Your task to perform on an android device: set default search engine in the chrome app Image 0: 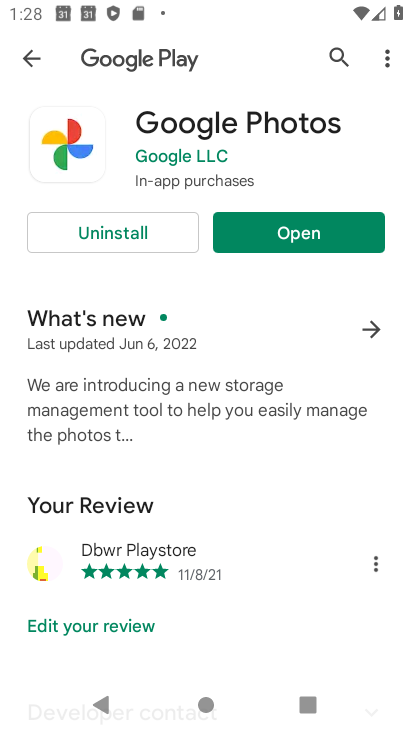
Step 0: drag from (226, 420) to (260, 155)
Your task to perform on an android device: set default search engine in the chrome app Image 1: 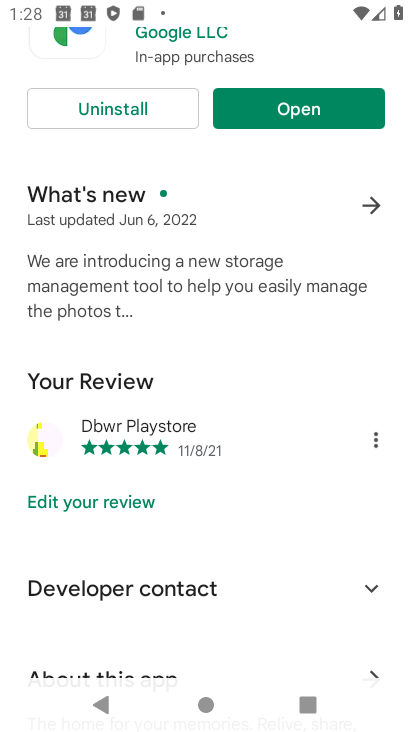
Step 1: press home button
Your task to perform on an android device: set default search engine in the chrome app Image 2: 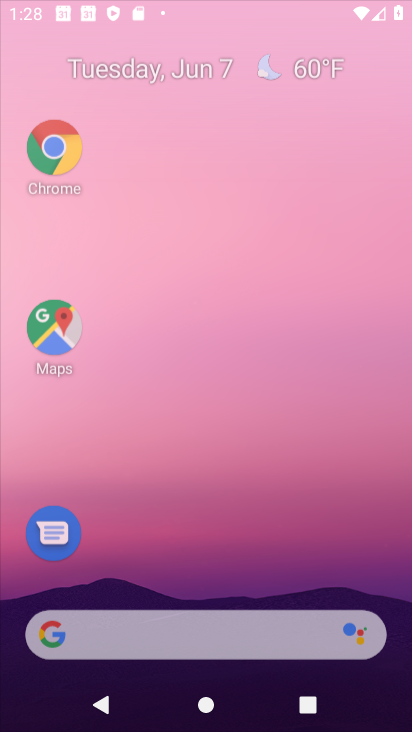
Step 2: drag from (174, 601) to (284, 272)
Your task to perform on an android device: set default search engine in the chrome app Image 3: 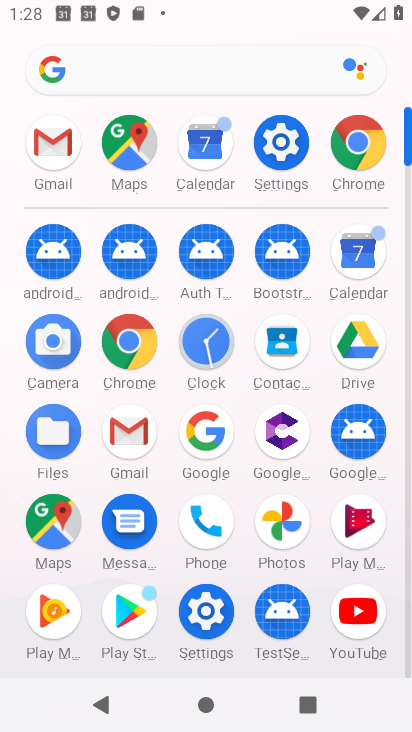
Step 3: click (127, 350)
Your task to perform on an android device: set default search engine in the chrome app Image 4: 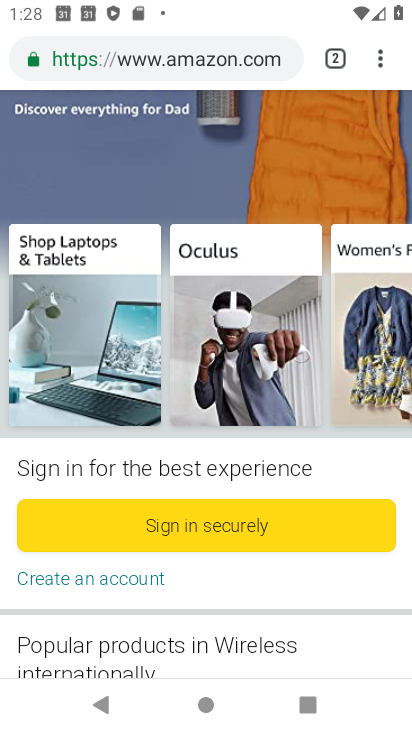
Step 4: click (388, 54)
Your task to perform on an android device: set default search engine in the chrome app Image 5: 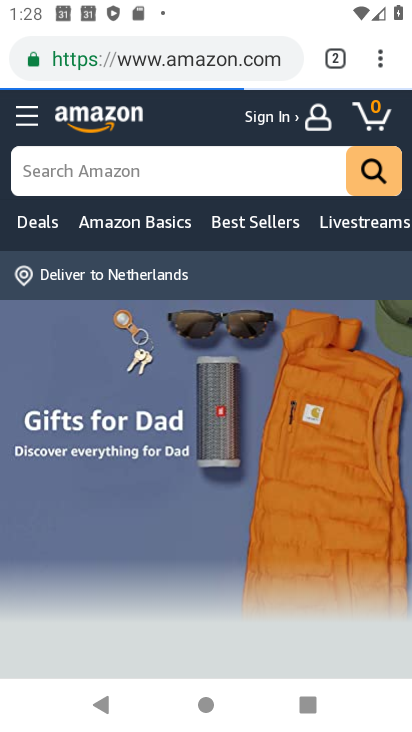
Step 5: drag from (384, 55) to (193, 574)
Your task to perform on an android device: set default search engine in the chrome app Image 6: 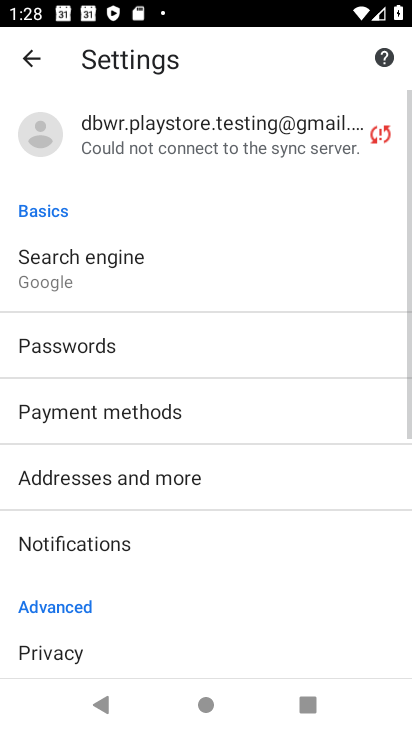
Step 6: click (63, 290)
Your task to perform on an android device: set default search engine in the chrome app Image 7: 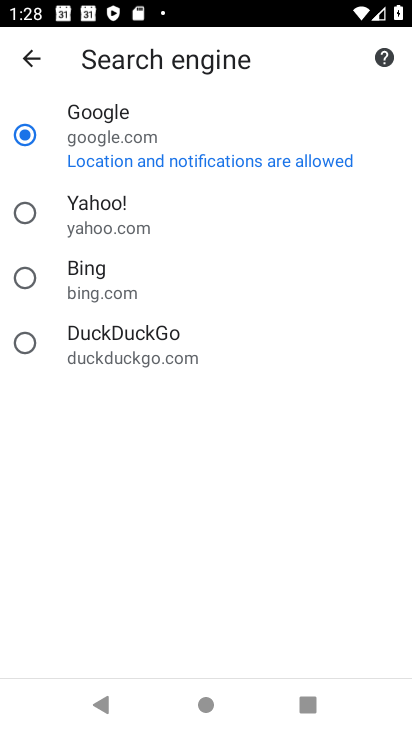
Step 7: task complete